Your task to perform on an android device: Open battery settings Image 0: 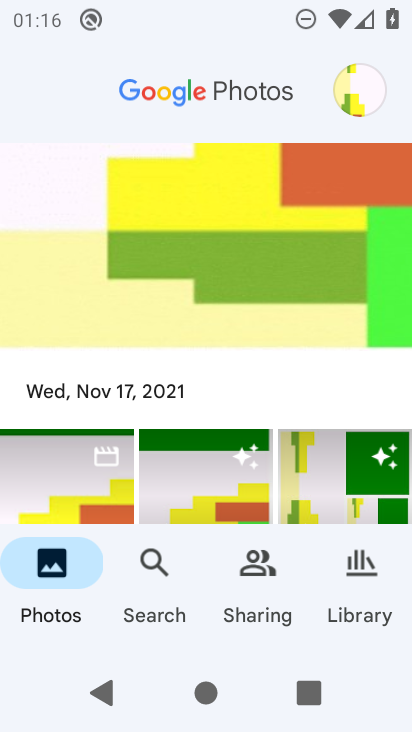
Step 0: drag from (286, 528) to (307, 29)
Your task to perform on an android device: Open battery settings Image 1: 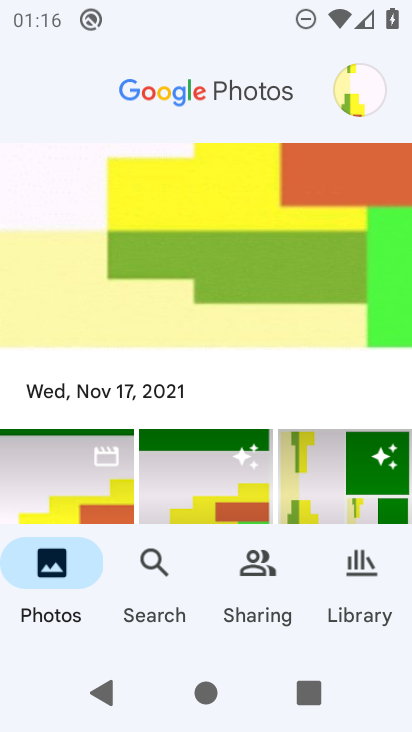
Step 1: press home button
Your task to perform on an android device: Open battery settings Image 2: 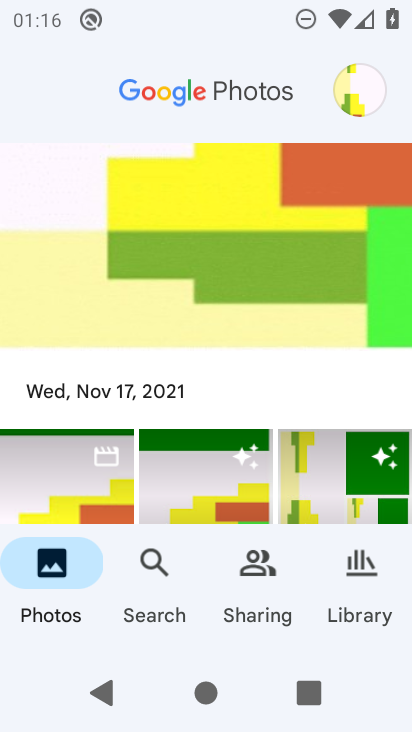
Step 2: drag from (238, 530) to (298, 20)
Your task to perform on an android device: Open battery settings Image 3: 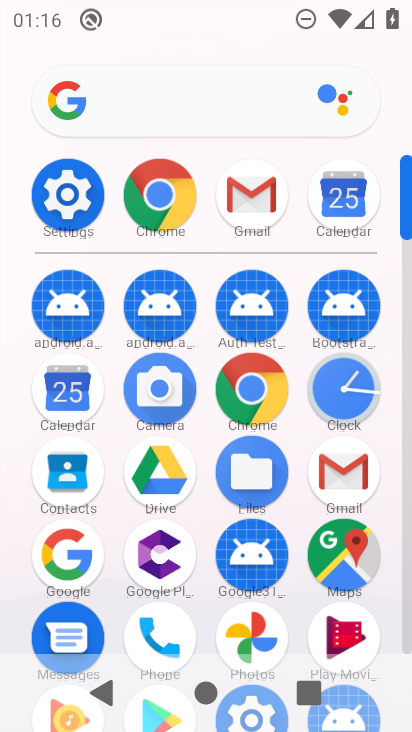
Step 3: click (88, 203)
Your task to perform on an android device: Open battery settings Image 4: 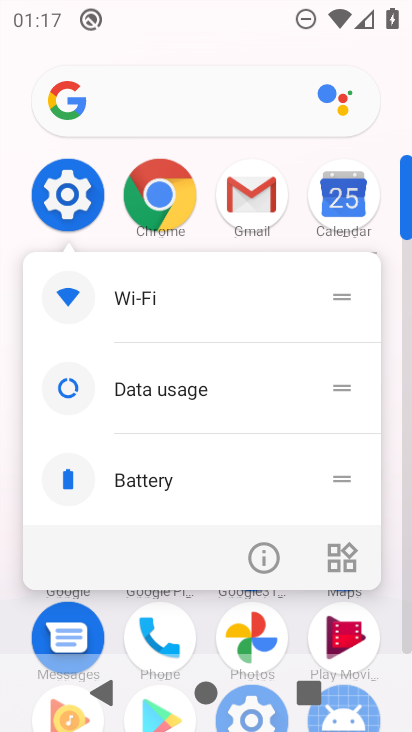
Step 4: click (176, 464)
Your task to perform on an android device: Open battery settings Image 5: 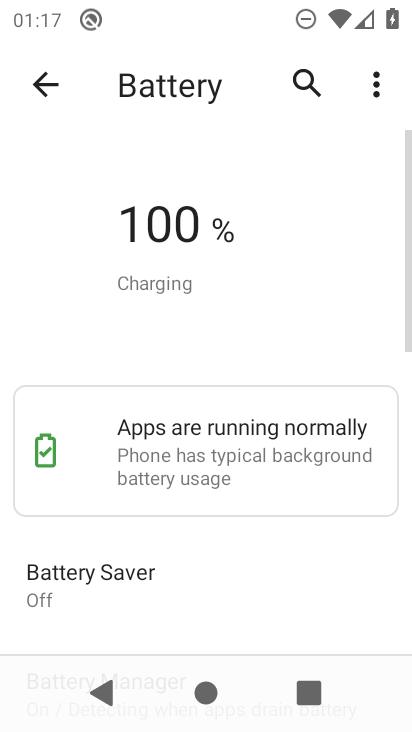
Step 5: task complete